Your task to perform on an android device: Open Youtube and go to "Your channel" Image 0: 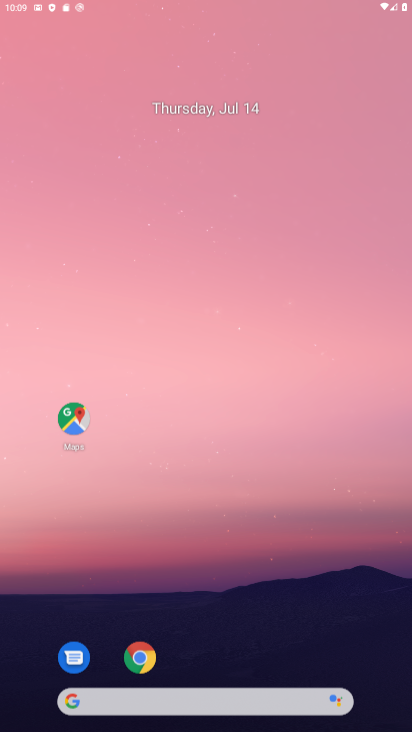
Step 0: click (316, 686)
Your task to perform on an android device: Open Youtube and go to "Your channel" Image 1: 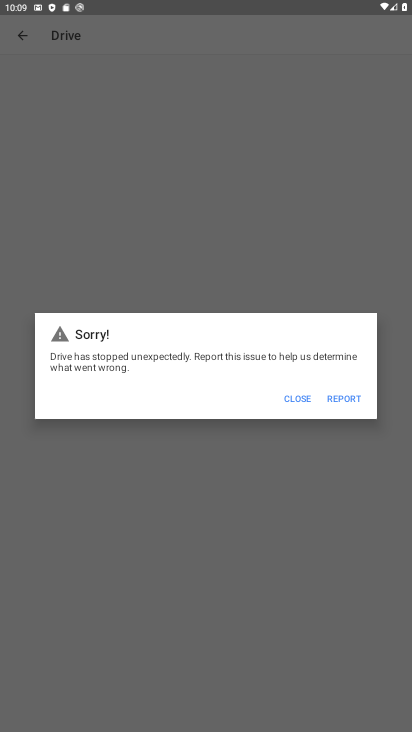
Step 1: press home button
Your task to perform on an android device: Open Youtube and go to "Your channel" Image 2: 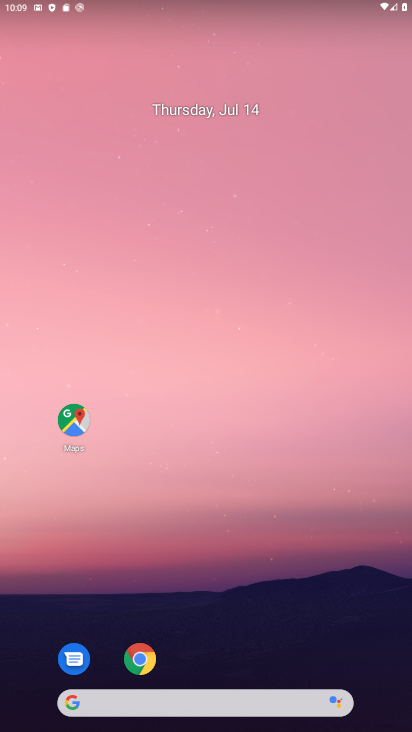
Step 2: drag from (225, 687) to (369, 0)
Your task to perform on an android device: Open Youtube and go to "Your channel" Image 3: 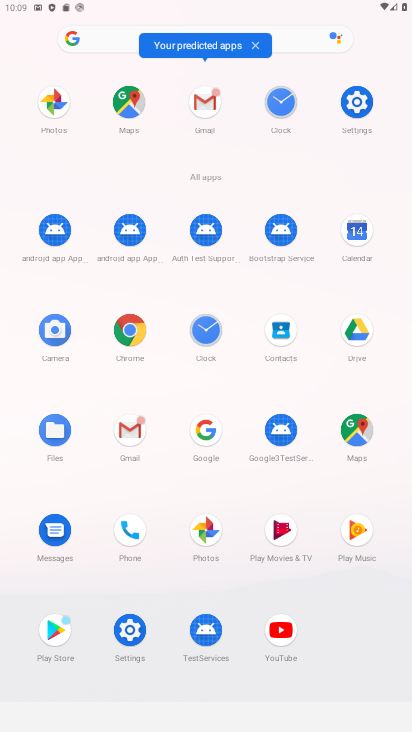
Step 3: click (273, 632)
Your task to perform on an android device: Open Youtube and go to "Your channel" Image 4: 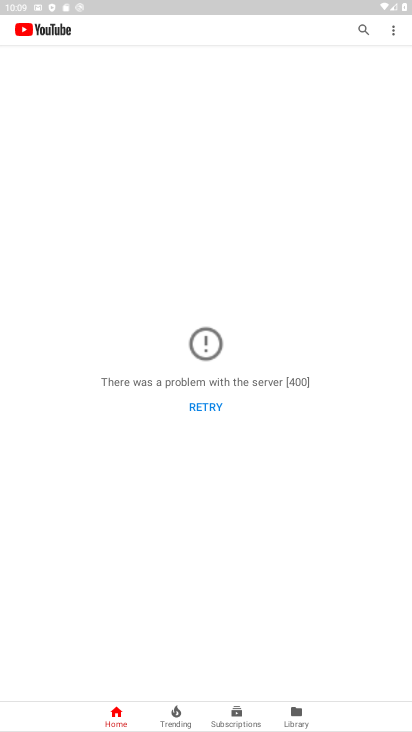
Step 4: click (287, 710)
Your task to perform on an android device: Open Youtube and go to "Your channel" Image 5: 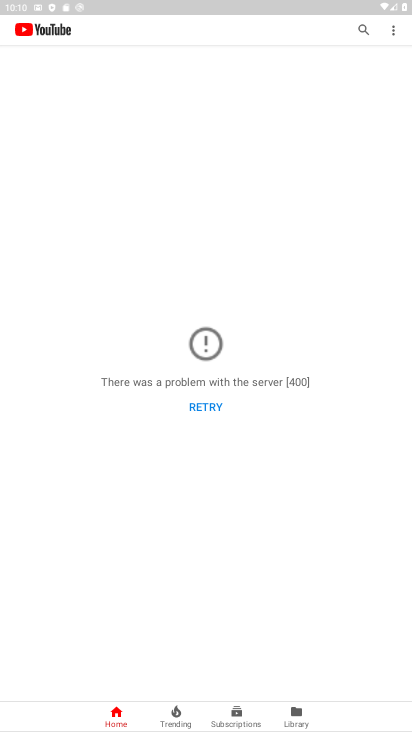
Step 5: click (288, 710)
Your task to perform on an android device: Open Youtube and go to "Your channel" Image 6: 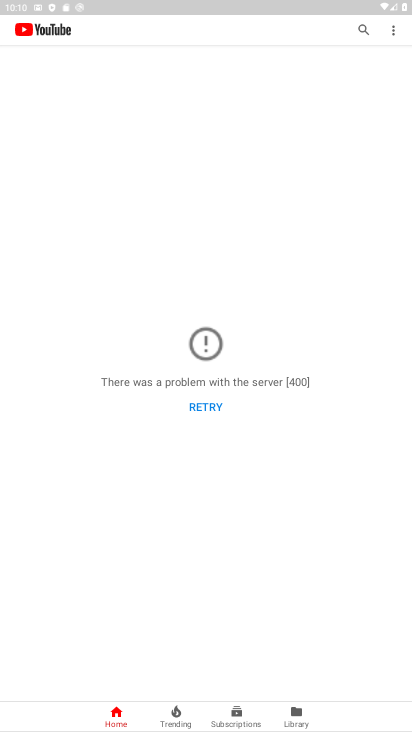
Step 6: click (303, 711)
Your task to perform on an android device: Open Youtube and go to "Your channel" Image 7: 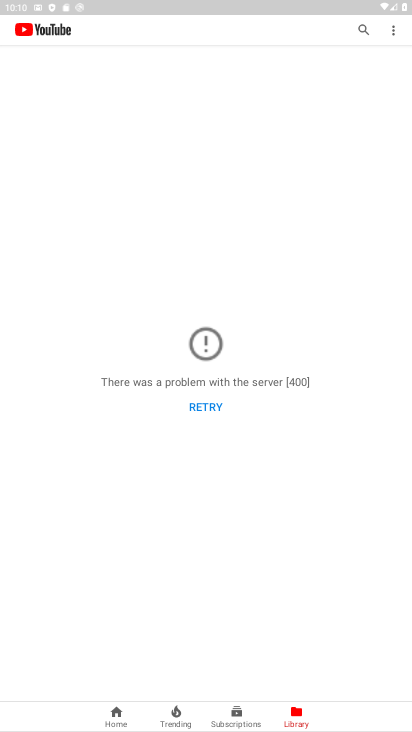
Step 7: task complete